Your task to perform on an android device: Go to Reddit.com Image 0: 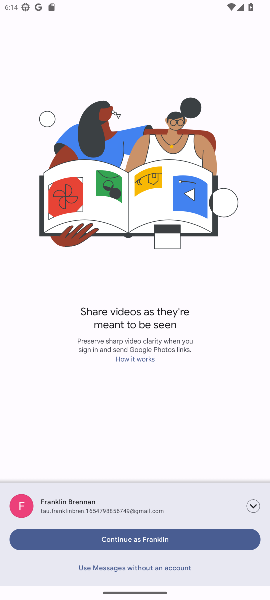
Step 0: press back button
Your task to perform on an android device: Go to Reddit.com Image 1: 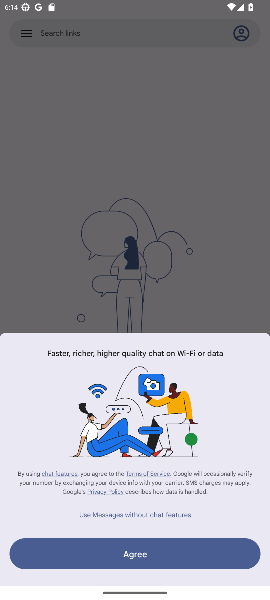
Step 1: press back button
Your task to perform on an android device: Go to Reddit.com Image 2: 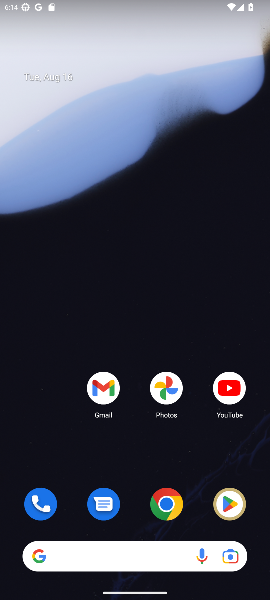
Step 2: click (81, 546)
Your task to perform on an android device: Go to Reddit.com Image 3: 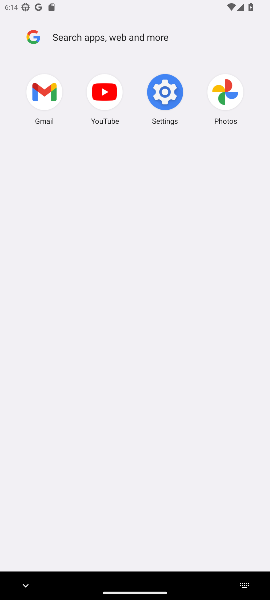
Step 3: type "Reddit.com"
Your task to perform on an android device: Go to Reddit.com Image 4: 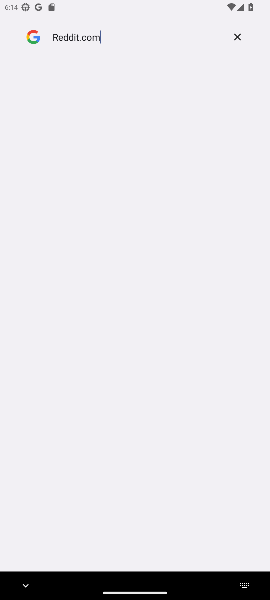
Step 4: type ""
Your task to perform on an android device: Go to Reddit.com Image 5: 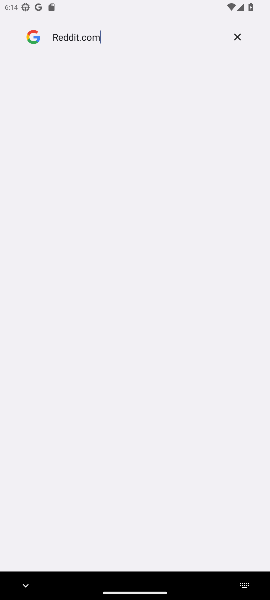
Step 5: type ""
Your task to perform on an android device: Go to Reddit.com Image 6: 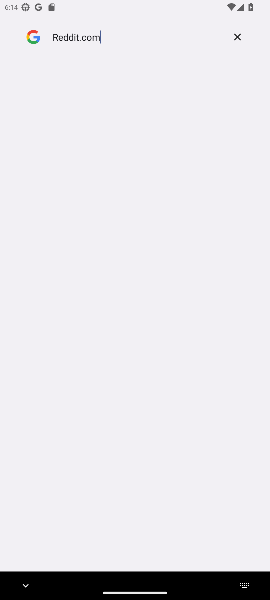
Step 6: task complete